Your task to perform on an android device: Open privacy settings Image 0: 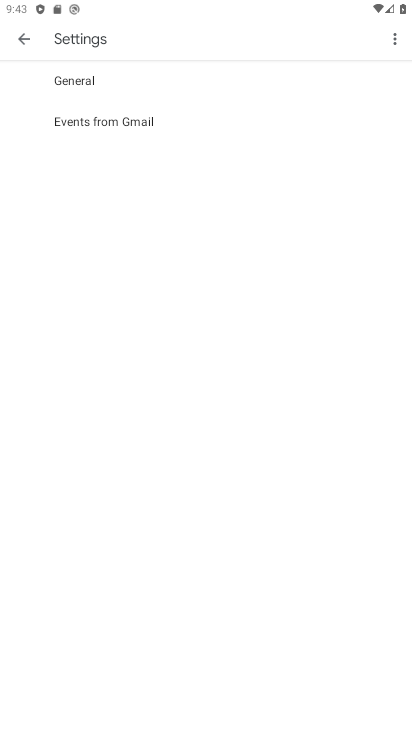
Step 0: press home button
Your task to perform on an android device: Open privacy settings Image 1: 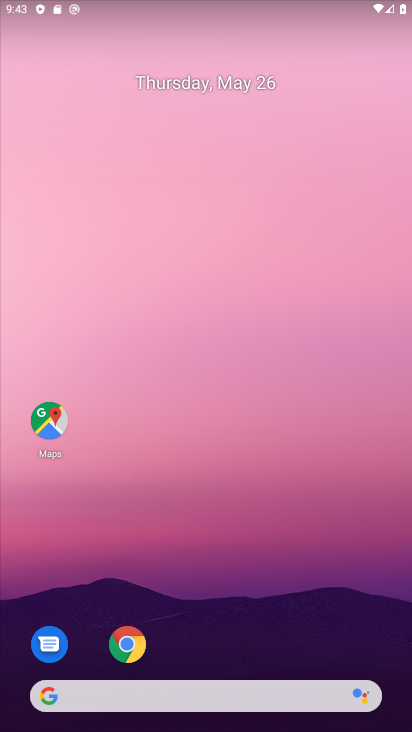
Step 1: drag from (351, 638) to (365, 253)
Your task to perform on an android device: Open privacy settings Image 2: 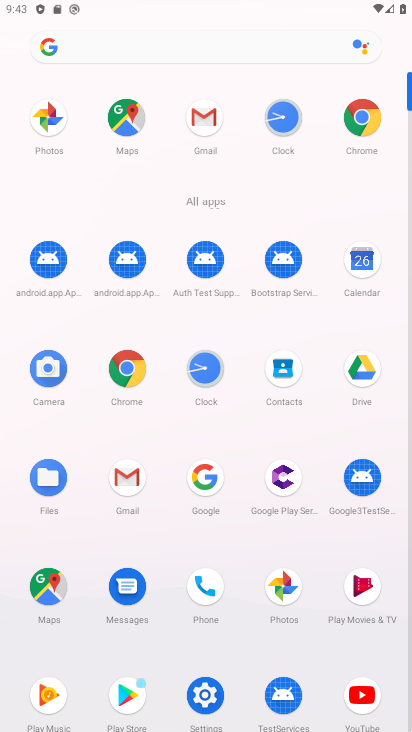
Step 2: drag from (242, 668) to (252, 453)
Your task to perform on an android device: Open privacy settings Image 3: 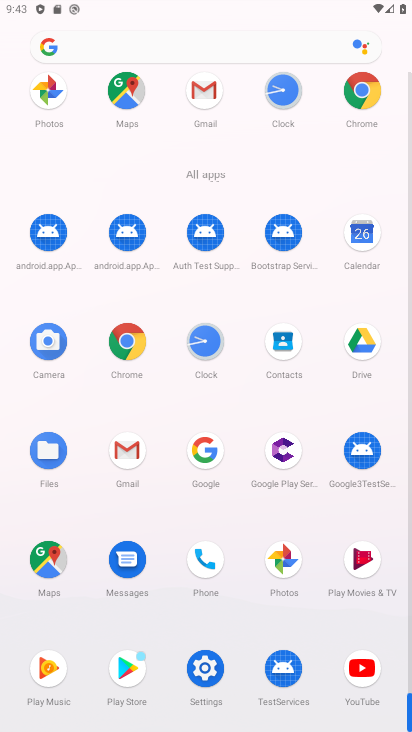
Step 3: click (209, 683)
Your task to perform on an android device: Open privacy settings Image 4: 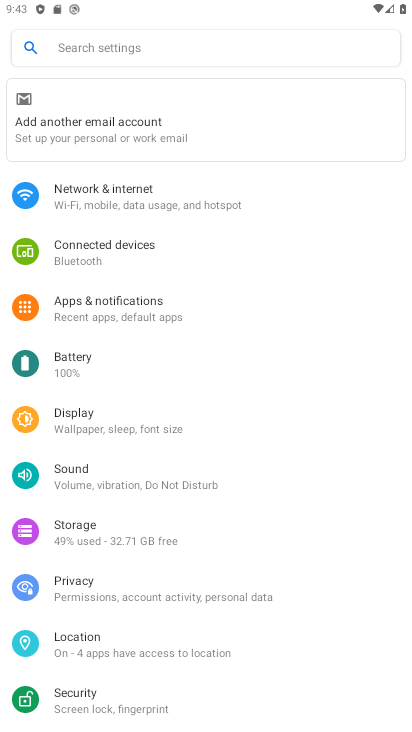
Step 4: click (155, 585)
Your task to perform on an android device: Open privacy settings Image 5: 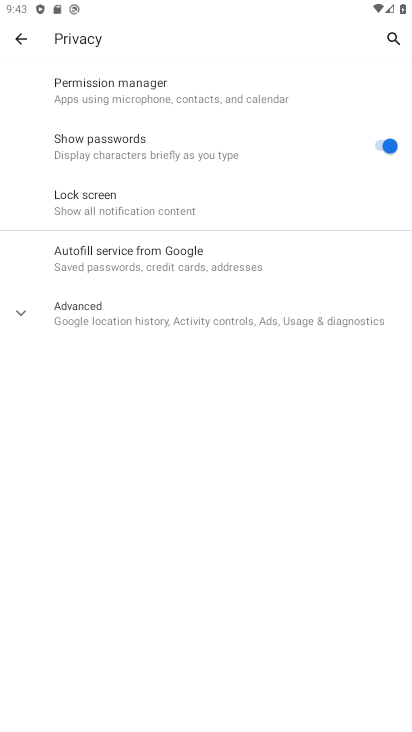
Step 5: task complete